Your task to perform on an android device: Open sound settings Image 0: 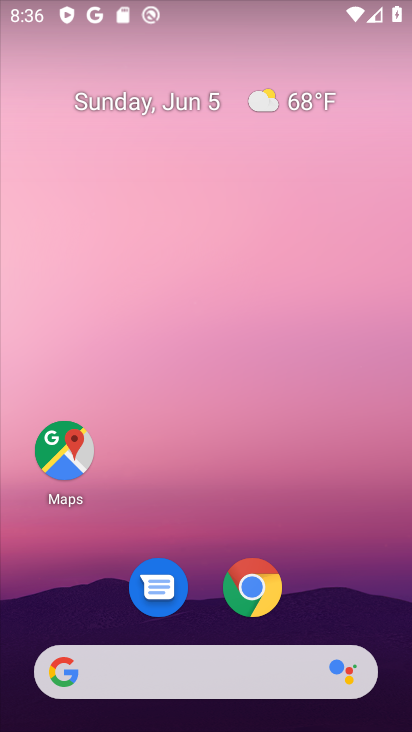
Step 0: drag from (309, 584) to (176, 56)
Your task to perform on an android device: Open sound settings Image 1: 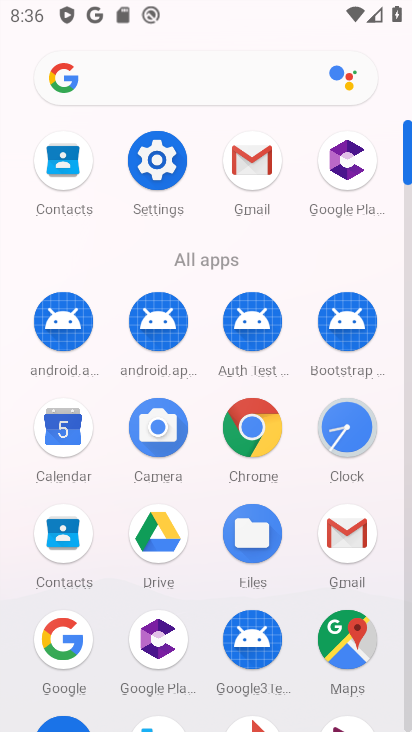
Step 1: click (170, 152)
Your task to perform on an android device: Open sound settings Image 2: 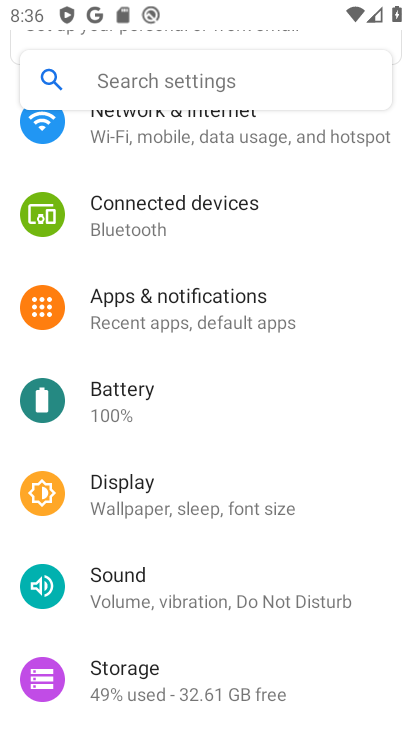
Step 2: click (179, 580)
Your task to perform on an android device: Open sound settings Image 3: 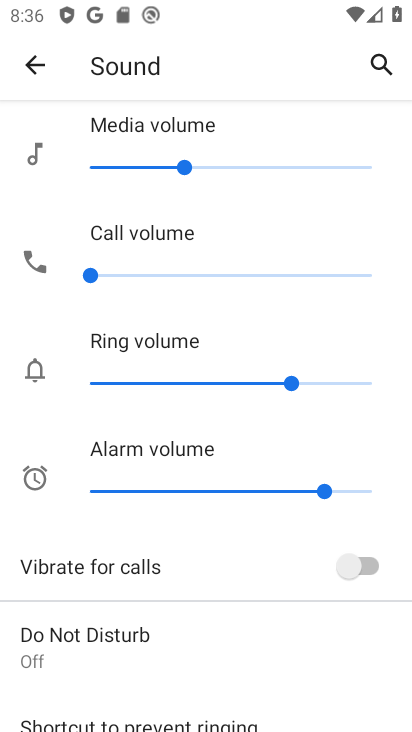
Step 3: task complete